Your task to perform on an android device: turn off smart reply in the gmail app Image 0: 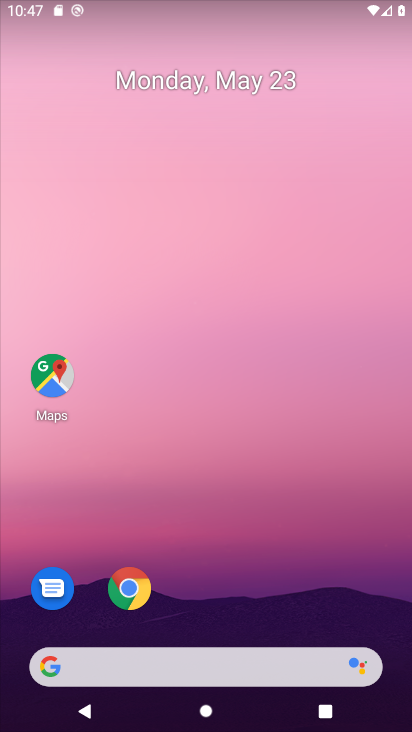
Step 0: drag from (160, 646) to (252, 103)
Your task to perform on an android device: turn off smart reply in the gmail app Image 1: 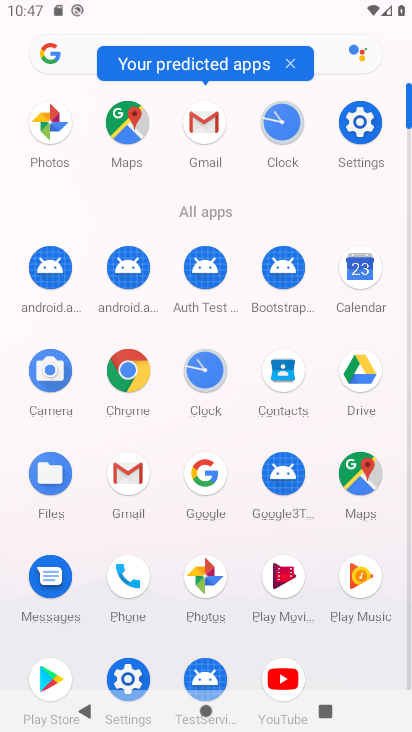
Step 1: click (119, 484)
Your task to perform on an android device: turn off smart reply in the gmail app Image 2: 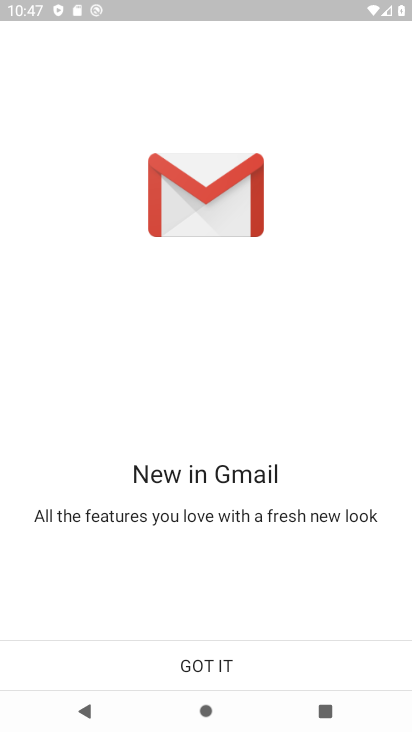
Step 2: click (234, 659)
Your task to perform on an android device: turn off smart reply in the gmail app Image 3: 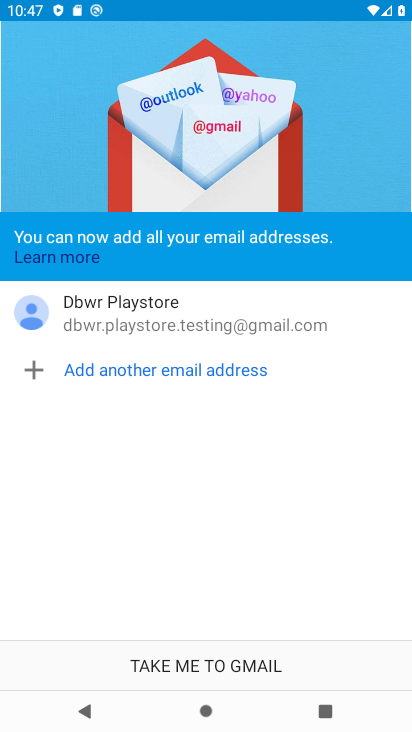
Step 3: click (234, 657)
Your task to perform on an android device: turn off smart reply in the gmail app Image 4: 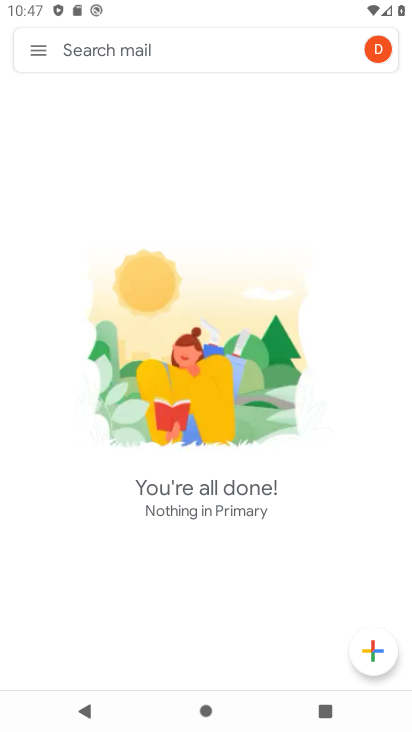
Step 4: click (41, 60)
Your task to perform on an android device: turn off smart reply in the gmail app Image 5: 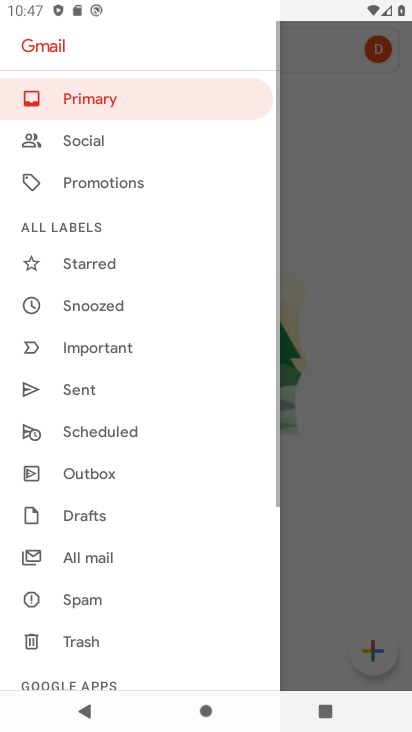
Step 5: drag from (104, 624) to (197, 229)
Your task to perform on an android device: turn off smart reply in the gmail app Image 6: 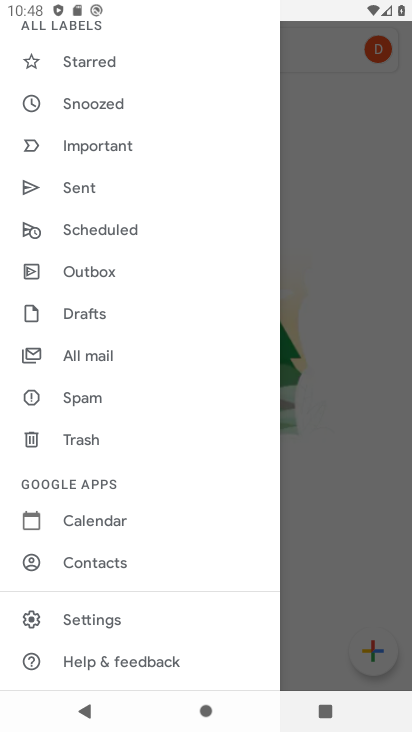
Step 6: click (172, 623)
Your task to perform on an android device: turn off smart reply in the gmail app Image 7: 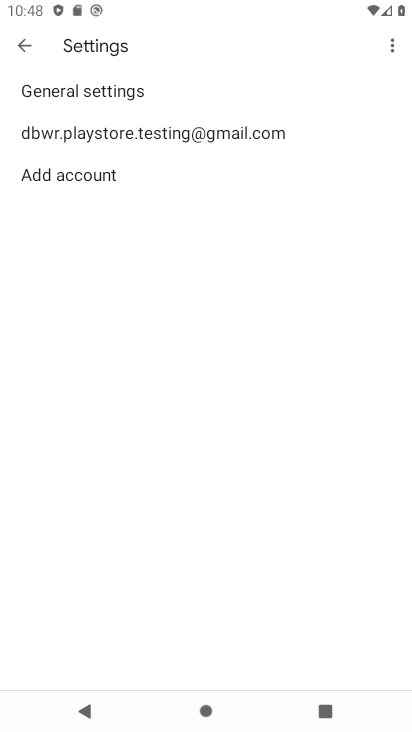
Step 7: click (168, 141)
Your task to perform on an android device: turn off smart reply in the gmail app Image 8: 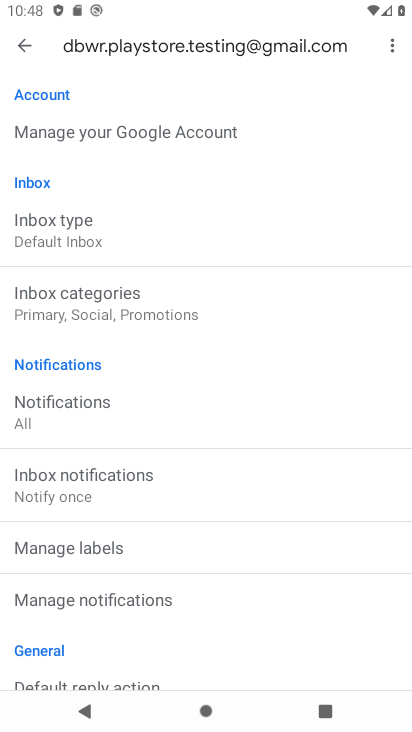
Step 8: drag from (157, 612) to (267, 142)
Your task to perform on an android device: turn off smart reply in the gmail app Image 9: 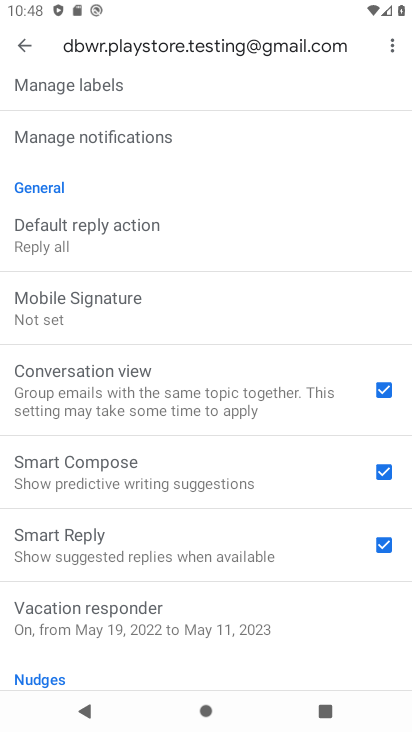
Step 9: click (384, 542)
Your task to perform on an android device: turn off smart reply in the gmail app Image 10: 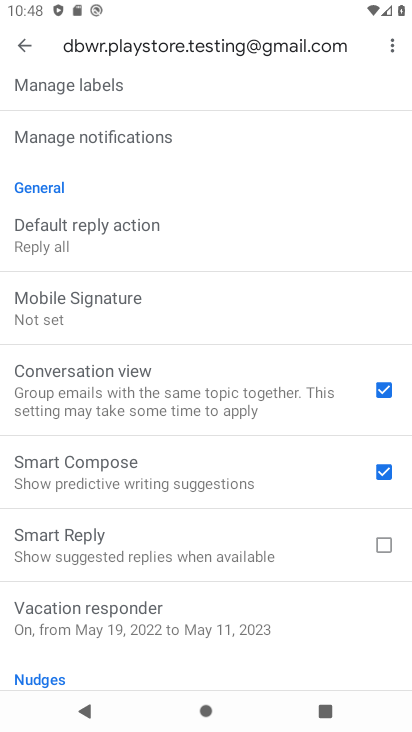
Step 10: task complete